Your task to perform on an android device: move a message to another label in the gmail app Image 0: 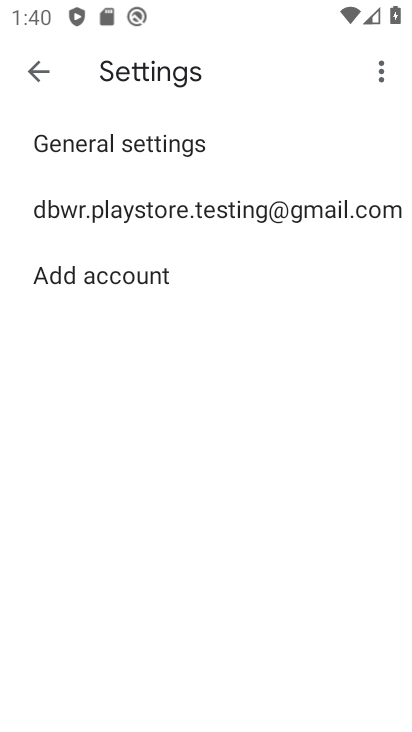
Step 0: press home button
Your task to perform on an android device: move a message to another label in the gmail app Image 1: 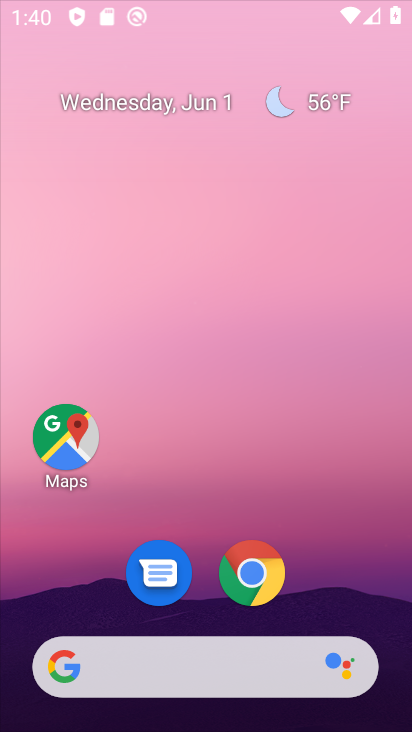
Step 1: drag from (239, 502) to (212, 36)
Your task to perform on an android device: move a message to another label in the gmail app Image 2: 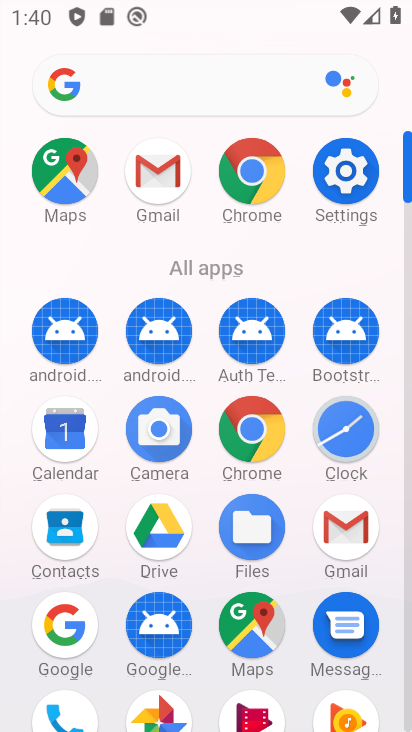
Step 2: click (350, 534)
Your task to perform on an android device: move a message to another label in the gmail app Image 3: 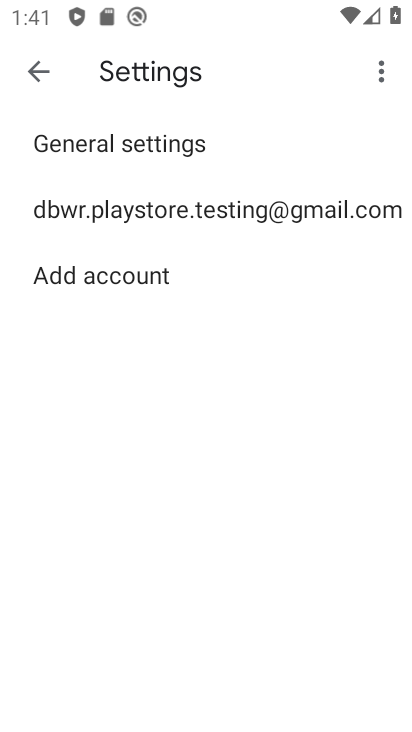
Step 3: click (45, 76)
Your task to perform on an android device: move a message to another label in the gmail app Image 4: 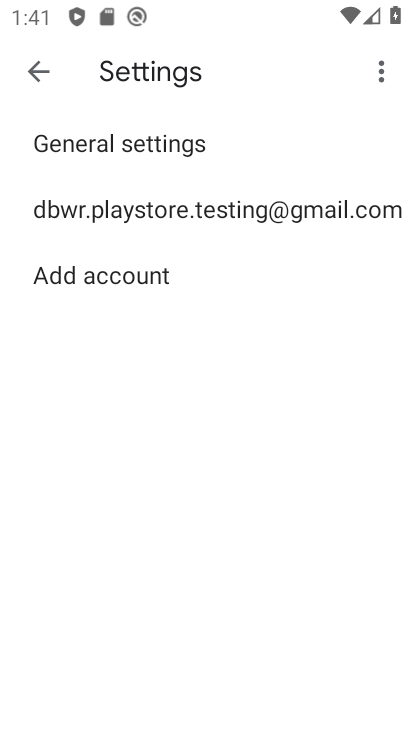
Step 4: click (23, 58)
Your task to perform on an android device: move a message to another label in the gmail app Image 5: 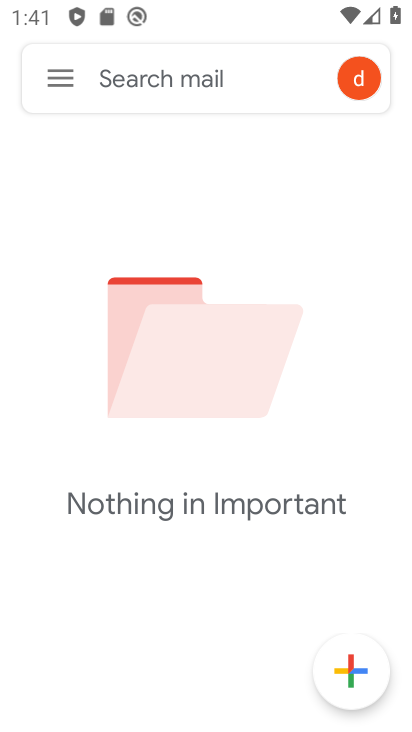
Step 5: drag from (249, 529) to (226, 241)
Your task to perform on an android device: move a message to another label in the gmail app Image 6: 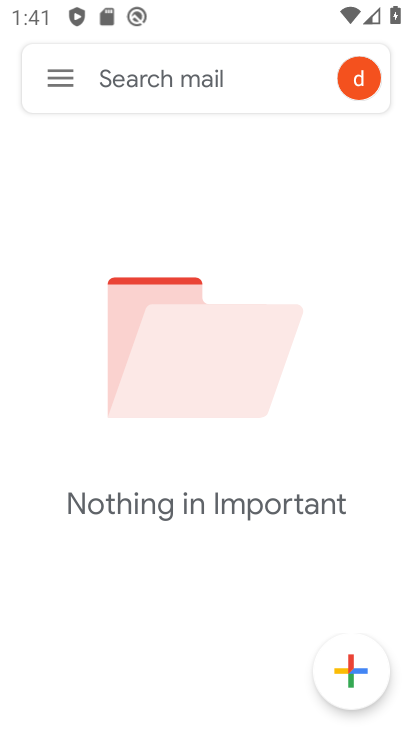
Step 6: click (58, 57)
Your task to perform on an android device: move a message to another label in the gmail app Image 7: 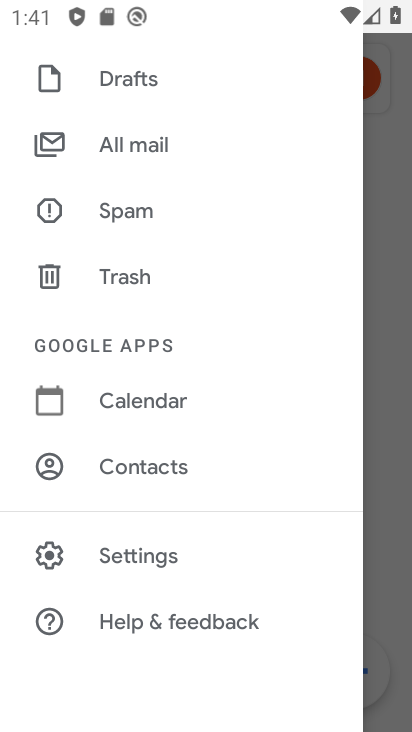
Step 7: click (168, 566)
Your task to perform on an android device: move a message to another label in the gmail app Image 8: 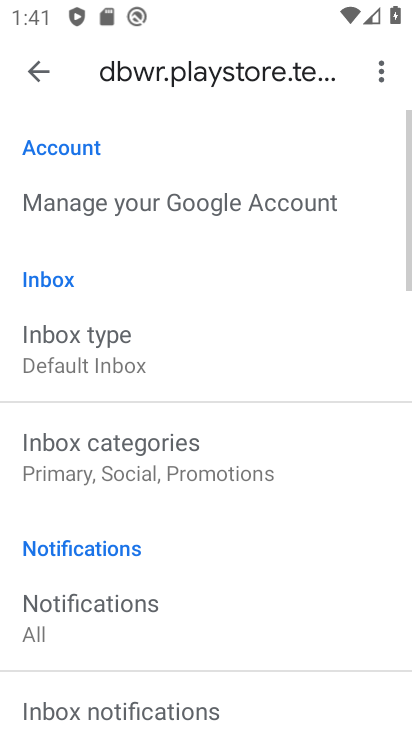
Step 8: task complete